Your task to perform on an android device: change notifications settings Image 0: 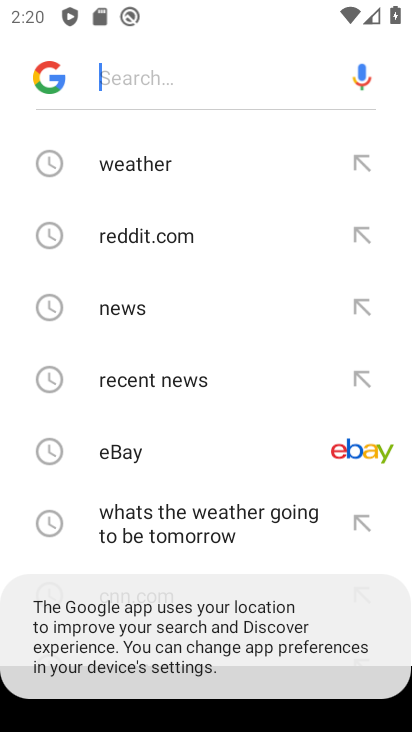
Step 0: press home button
Your task to perform on an android device: change notifications settings Image 1: 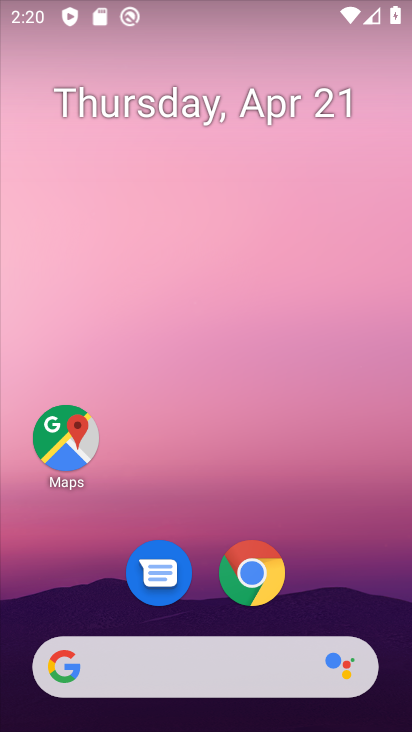
Step 1: drag from (97, 451) to (31, 135)
Your task to perform on an android device: change notifications settings Image 2: 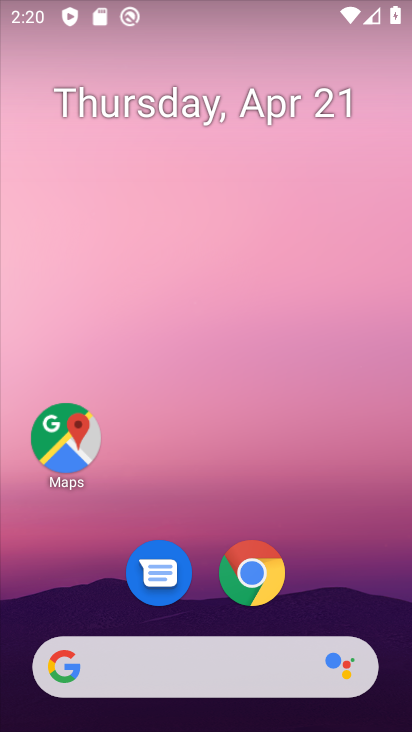
Step 2: drag from (232, 474) to (179, 77)
Your task to perform on an android device: change notifications settings Image 3: 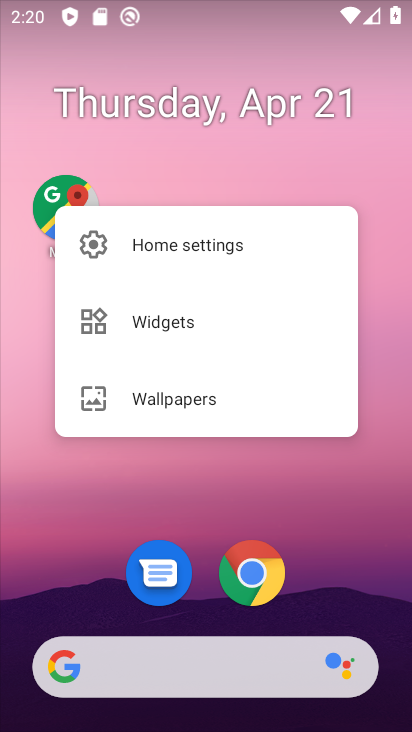
Step 3: click (232, 508)
Your task to perform on an android device: change notifications settings Image 4: 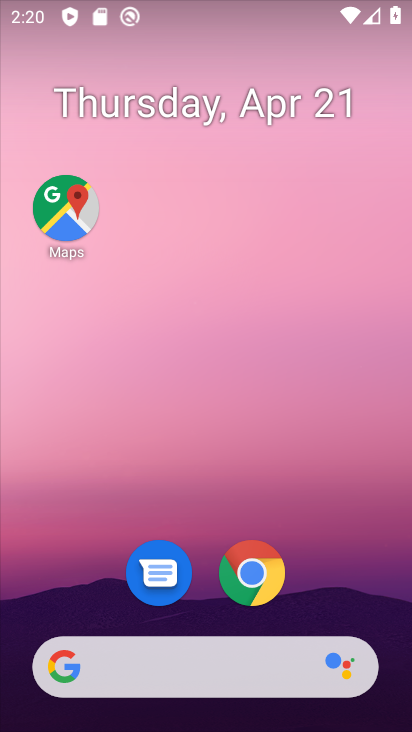
Step 4: drag from (252, 499) to (156, 4)
Your task to perform on an android device: change notifications settings Image 5: 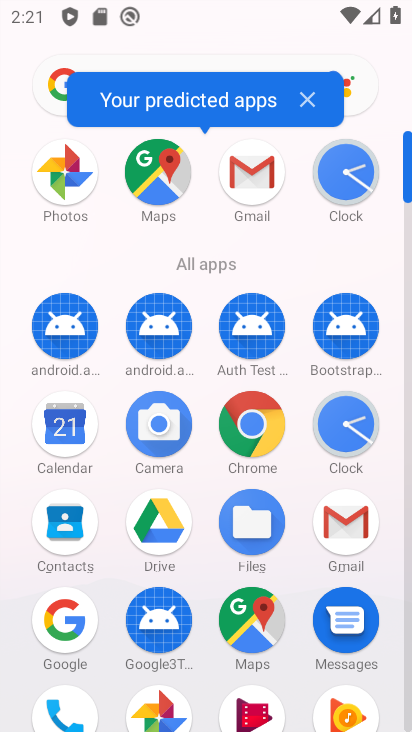
Step 5: drag from (196, 487) to (153, 262)
Your task to perform on an android device: change notifications settings Image 6: 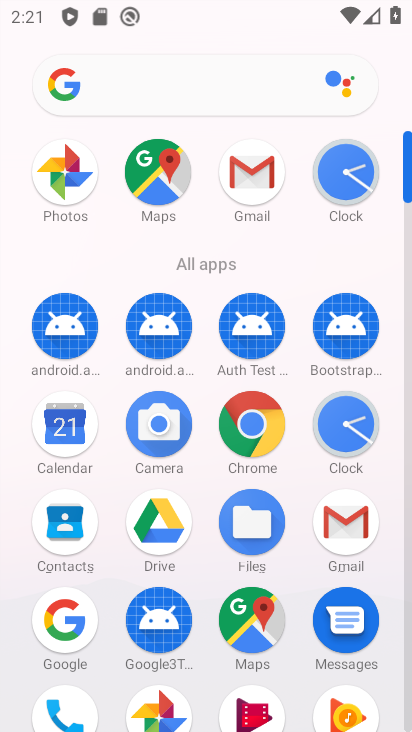
Step 6: drag from (206, 582) to (193, 279)
Your task to perform on an android device: change notifications settings Image 7: 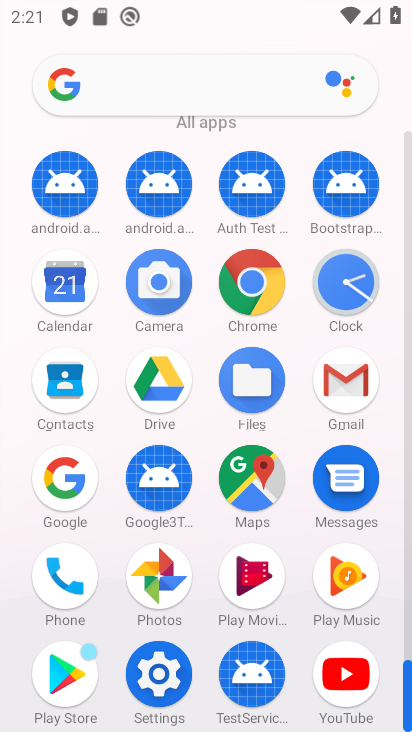
Step 7: click (169, 686)
Your task to perform on an android device: change notifications settings Image 8: 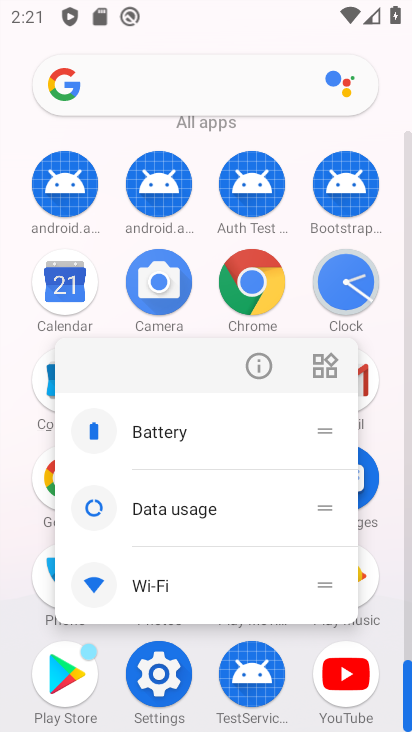
Step 8: click (253, 376)
Your task to perform on an android device: change notifications settings Image 9: 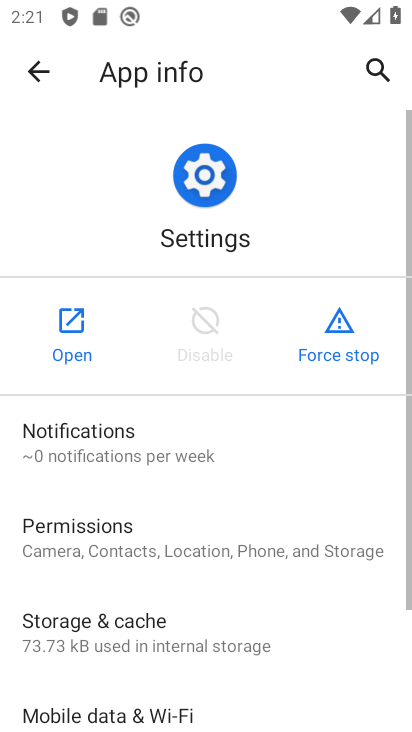
Step 9: click (62, 351)
Your task to perform on an android device: change notifications settings Image 10: 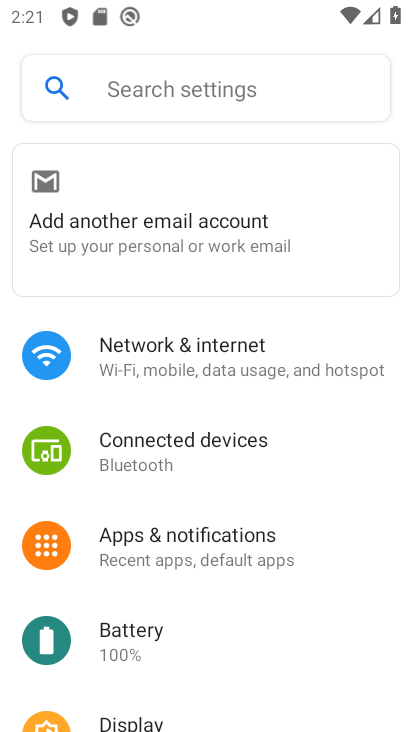
Step 10: click (170, 562)
Your task to perform on an android device: change notifications settings Image 11: 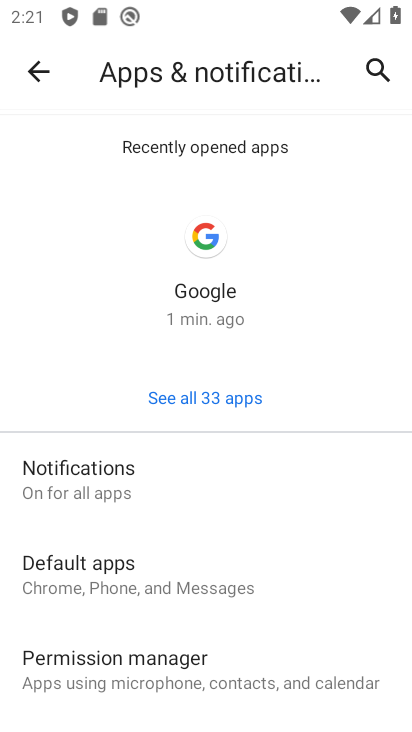
Step 11: click (101, 496)
Your task to perform on an android device: change notifications settings Image 12: 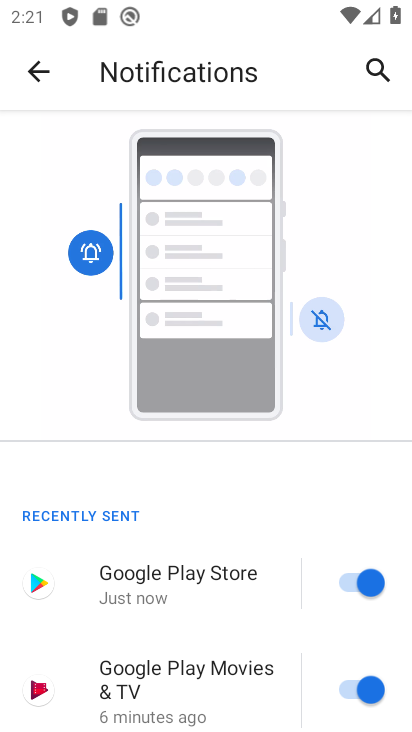
Step 12: drag from (160, 541) to (189, 283)
Your task to perform on an android device: change notifications settings Image 13: 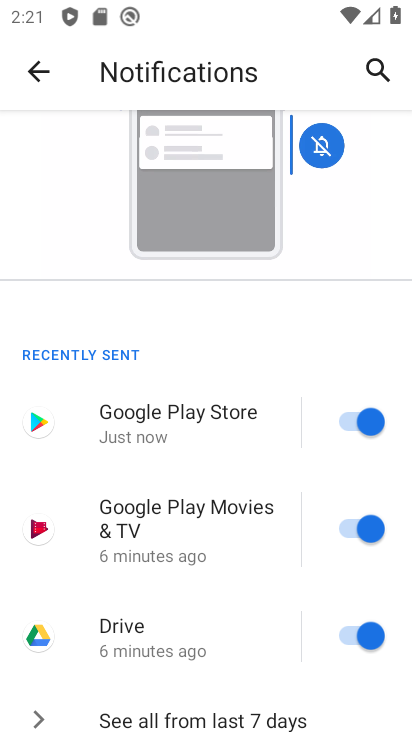
Step 13: click (356, 421)
Your task to perform on an android device: change notifications settings Image 14: 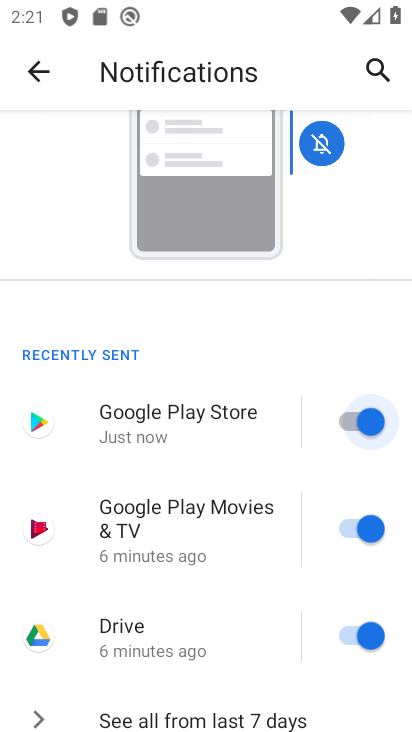
Step 14: task complete